Your task to perform on an android device: turn on showing notifications on the lock screen Image 0: 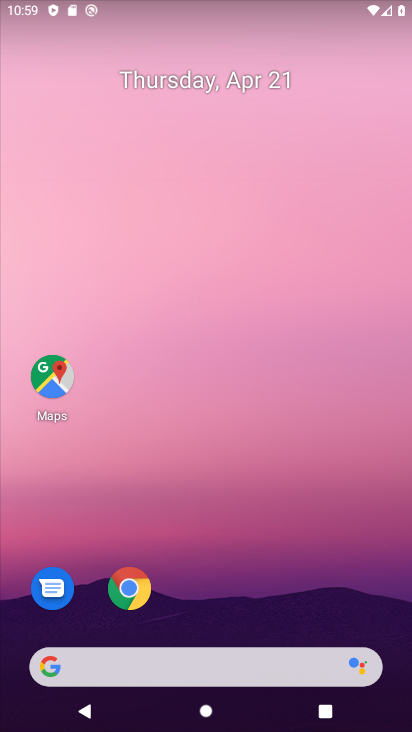
Step 0: drag from (225, 605) to (231, 134)
Your task to perform on an android device: turn on showing notifications on the lock screen Image 1: 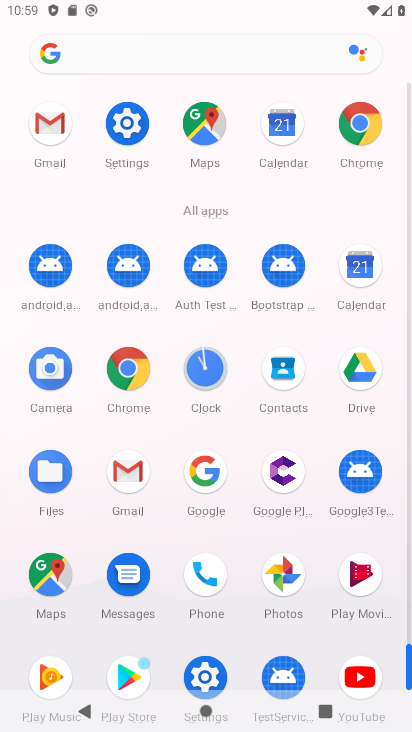
Step 1: click (138, 128)
Your task to perform on an android device: turn on showing notifications on the lock screen Image 2: 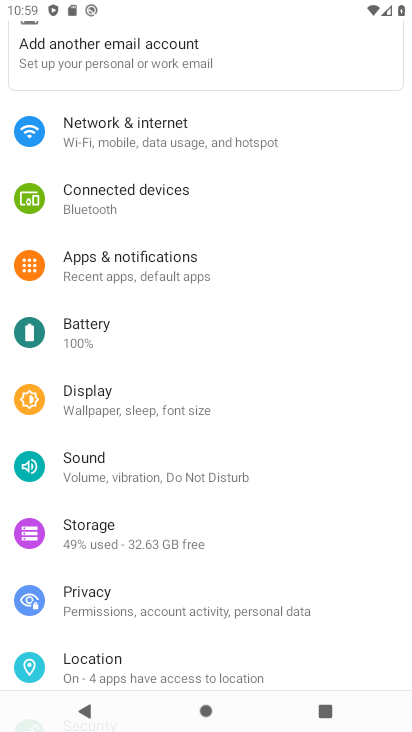
Step 2: click (133, 271)
Your task to perform on an android device: turn on showing notifications on the lock screen Image 3: 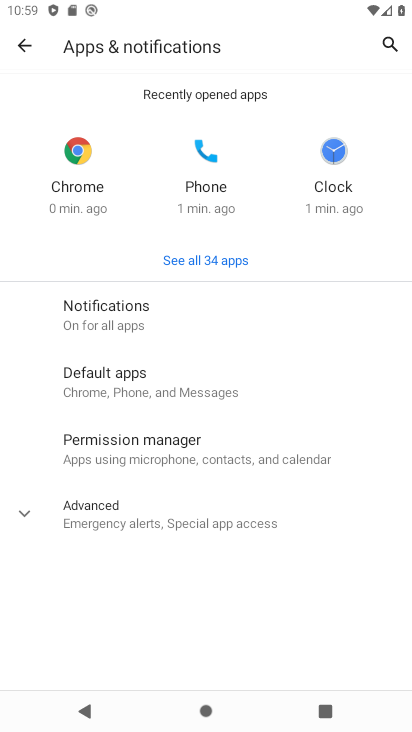
Step 3: click (148, 316)
Your task to perform on an android device: turn on showing notifications on the lock screen Image 4: 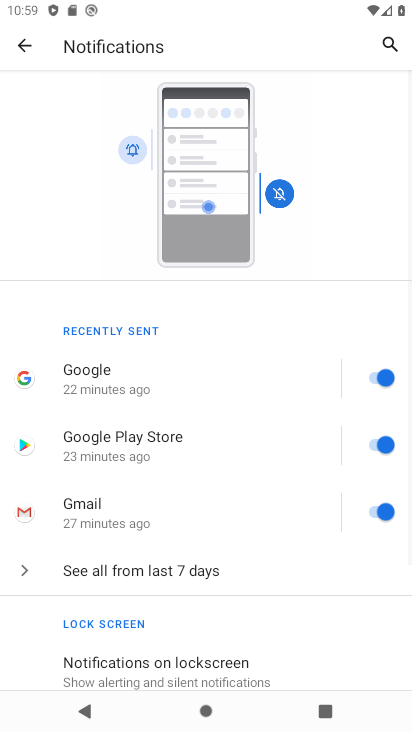
Step 4: drag from (182, 613) to (201, 360)
Your task to perform on an android device: turn on showing notifications on the lock screen Image 5: 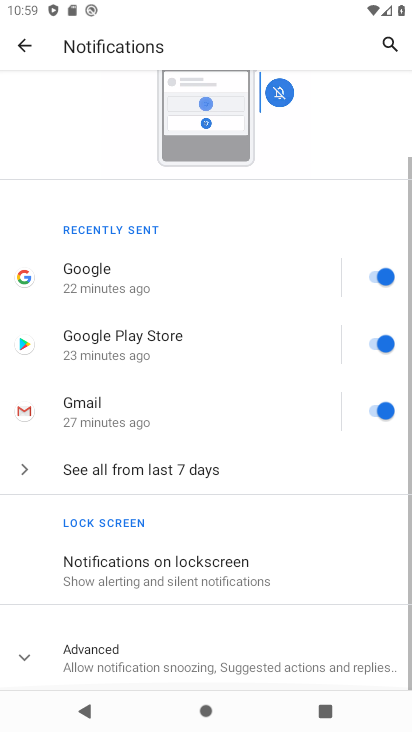
Step 5: click (142, 553)
Your task to perform on an android device: turn on showing notifications on the lock screen Image 6: 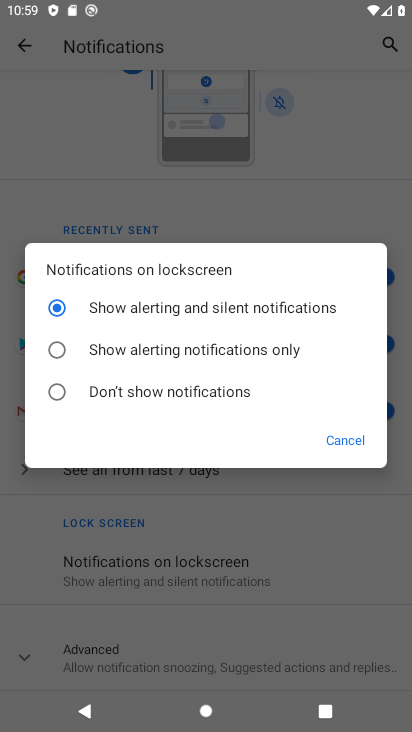
Step 6: task complete